Your task to perform on an android device: turn off location Image 0: 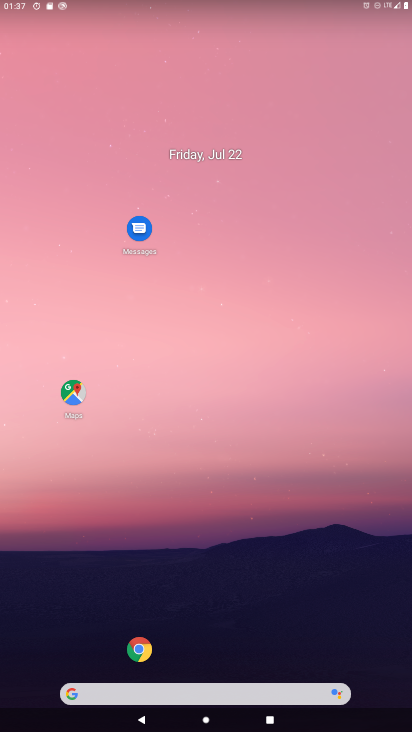
Step 0: drag from (37, 700) to (189, 252)
Your task to perform on an android device: turn off location Image 1: 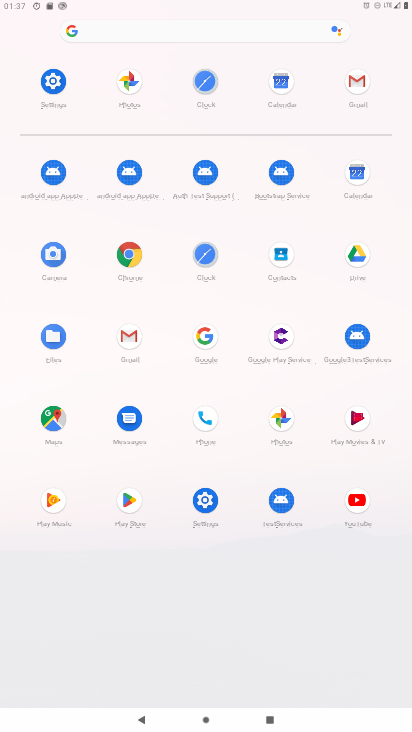
Step 1: click (202, 508)
Your task to perform on an android device: turn off location Image 2: 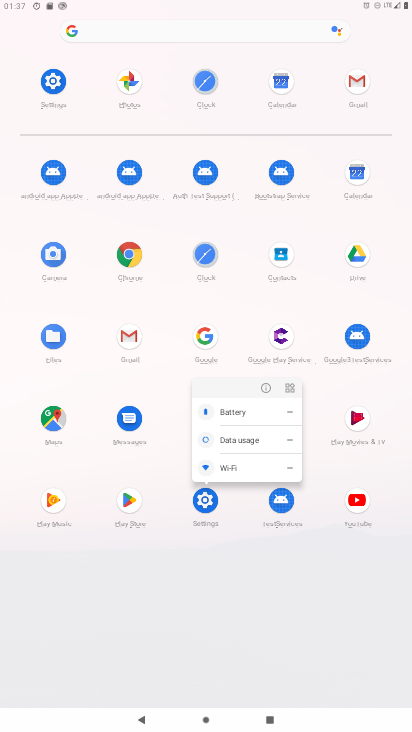
Step 2: click (200, 512)
Your task to perform on an android device: turn off location Image 3: 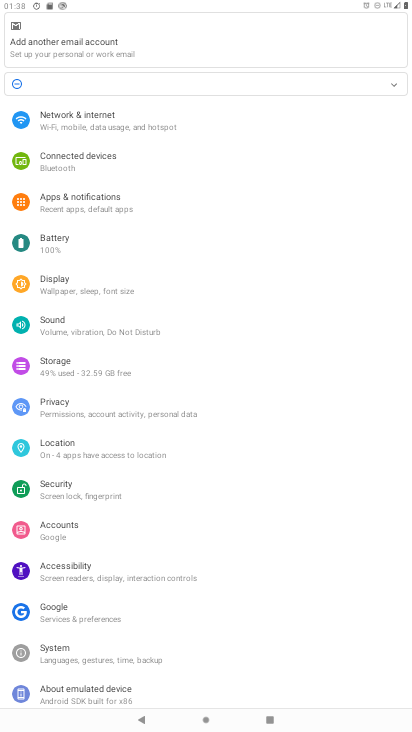
Step 3: click (85, 444)
Your task to perform on an android device: turn off location Image 4: 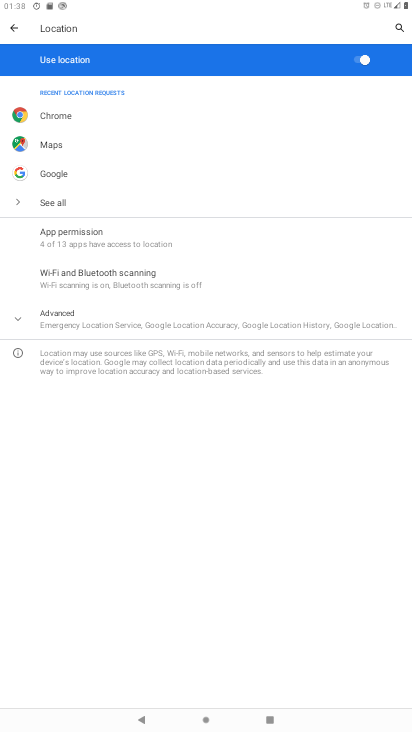
Step 4: click (367, 66)
Your task to perform on an android device: turn off location Image 5: 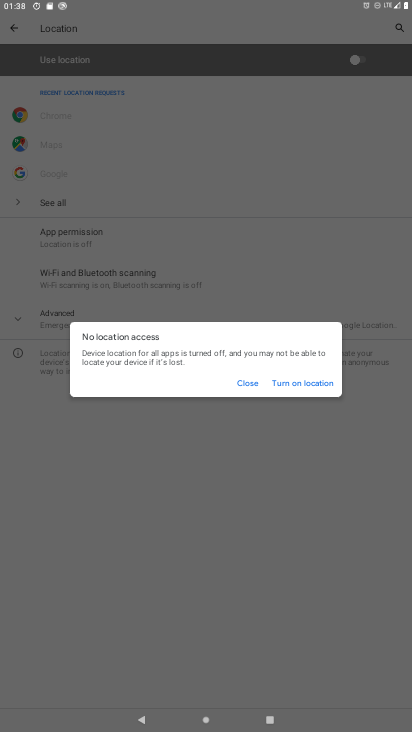
Step 5: task complete